Your task to perform on an android device: Search for sushi restaurants on Maps Image 0: 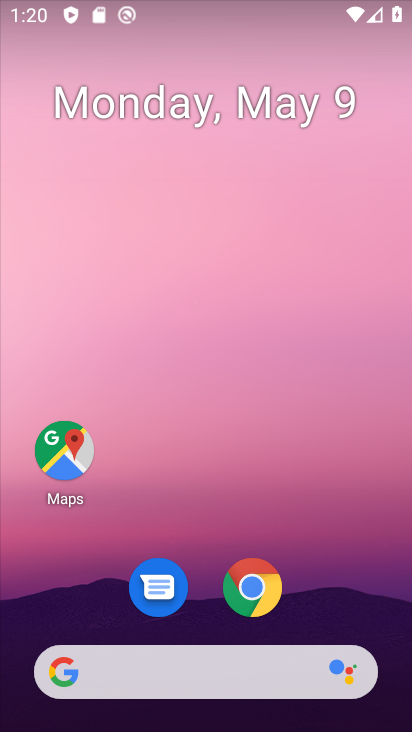
Step 0: click (70, 467)
Your task to perform on an android device: Search for sushi restaurants on Maps Image 1: 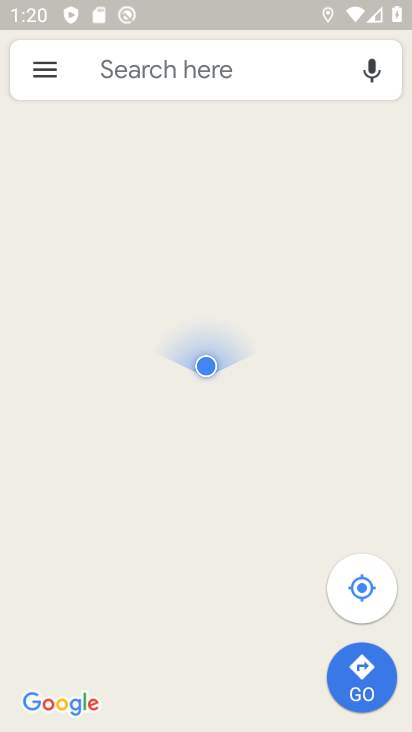
Step 1: click (215, 66)
Your task to perform on an android device: Search for sushi restaurants on Maps Image 2: 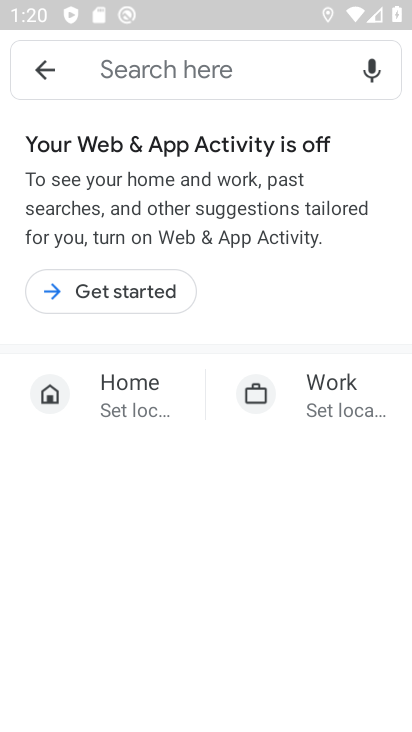
Step 2: click (215, 66)
Your task to perform on an android device: Search for sushi restaurants on Maps Image 3: 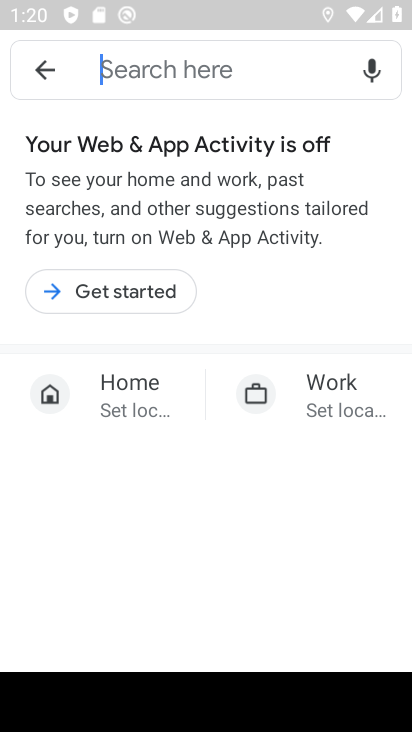
Step 3: click (215, 66)
Your task to perform on an android device: Search for sushi restaurants on Maps Image 4: 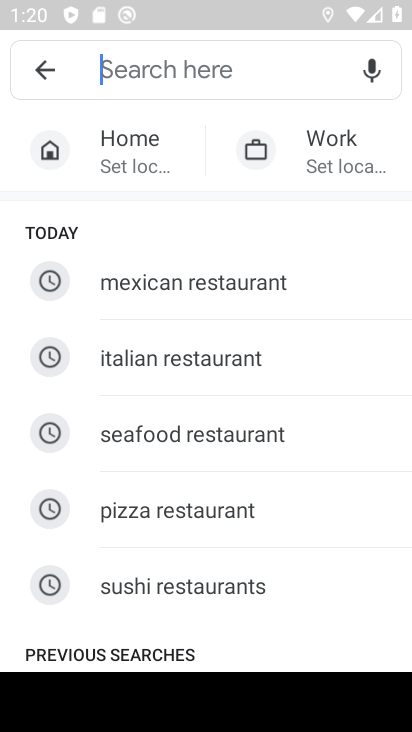
Step 4: type "sushi restaurants "
Your task to perform on an android device: Search for sushi restaurants on Maps Image 5: 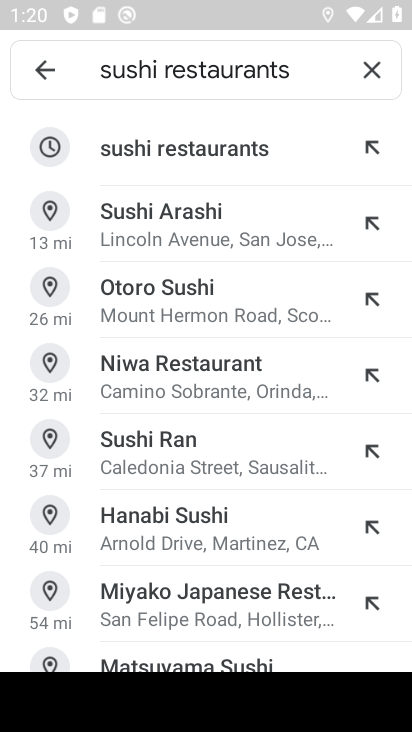
Step 5: click (243, 162)
Your task to perform on an android device: Search for sushi restaurants on Maps Image 6: 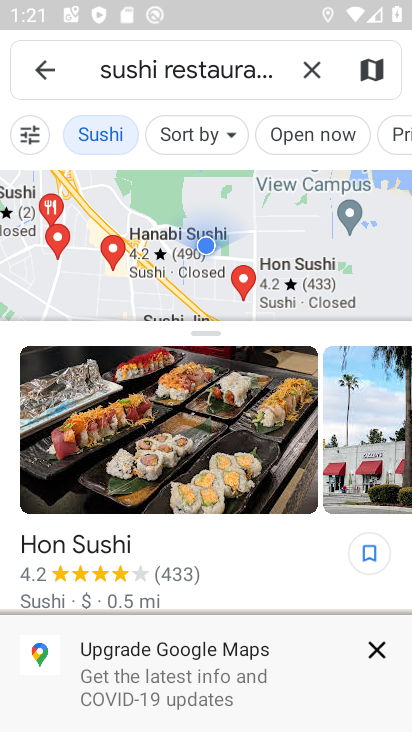
Step 6: click (383, 655)
Your task to perform on an android device: Search for sushi restaurants on Maps Image 7: 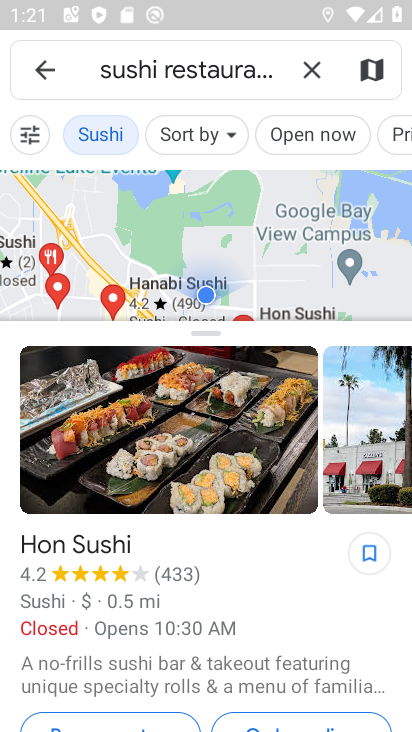
Step 7: click (286, 413)
Your task to perform on an android device: Search for sushi restaurants on Maps Image 8: 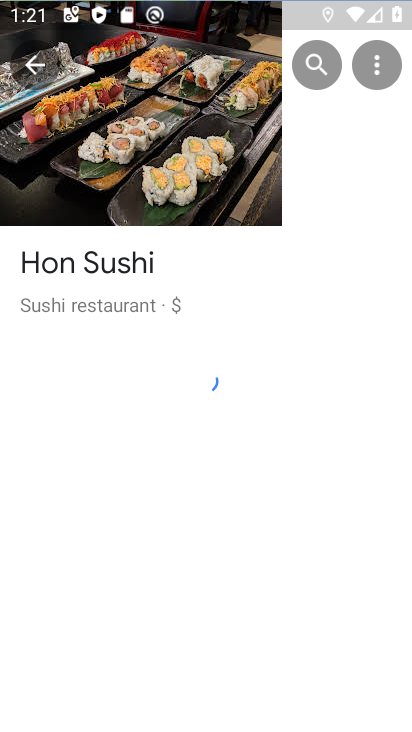
Step 8: task complete